Your task to perform on an android device: Open Chrome and go to settings Image 0: 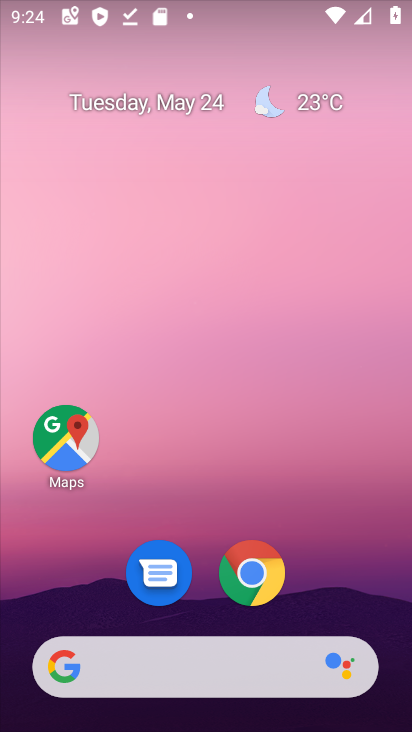
Step 0: drag from (340, 682) to (260, 58)
Your task to perform on an android device: Open Chrome and go to settings Image 1: 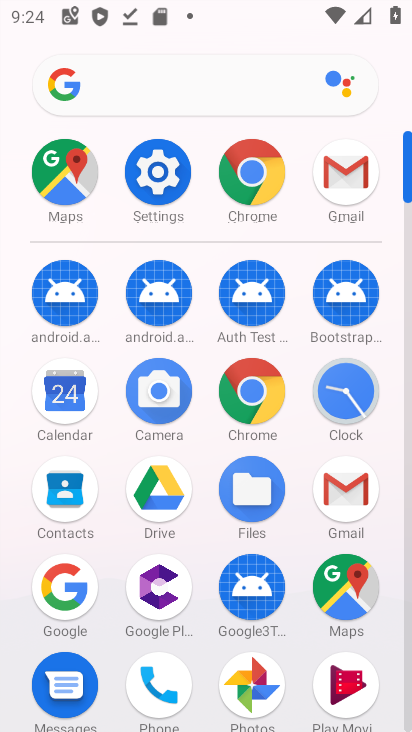
Step 1: click (248, 168)
Your task to perform on an android device: Open Chrome and go to settings Image 2: 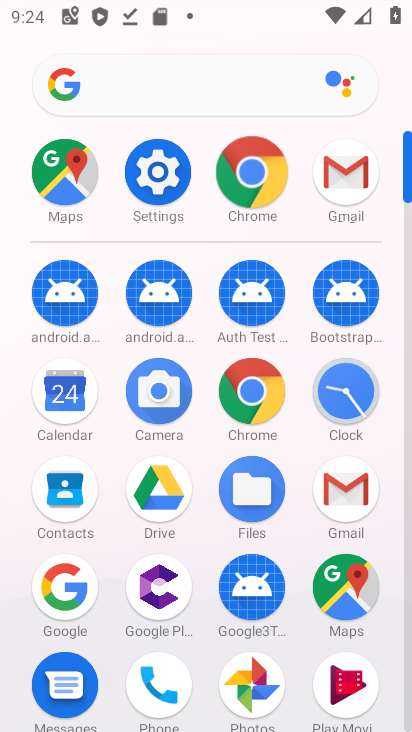
Step 2: click (248, 168)
Your task to perform on an android device: Open Chrome and go to settings Image 3: 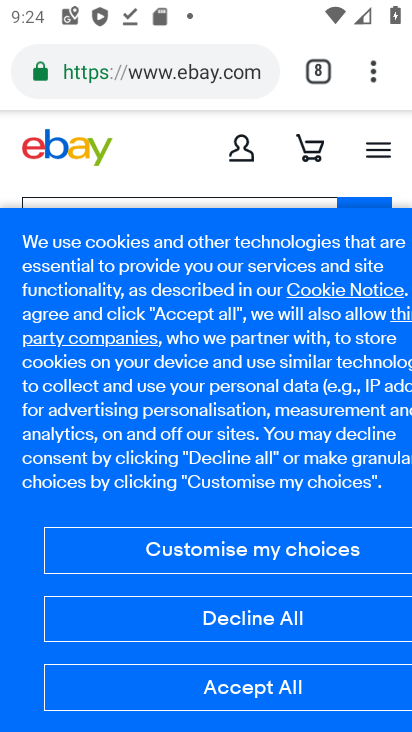
Step 3: drag from (369, 82) to (119, 576)
Your task to perform on an android device: Open Chrome and go to settings Image 4: 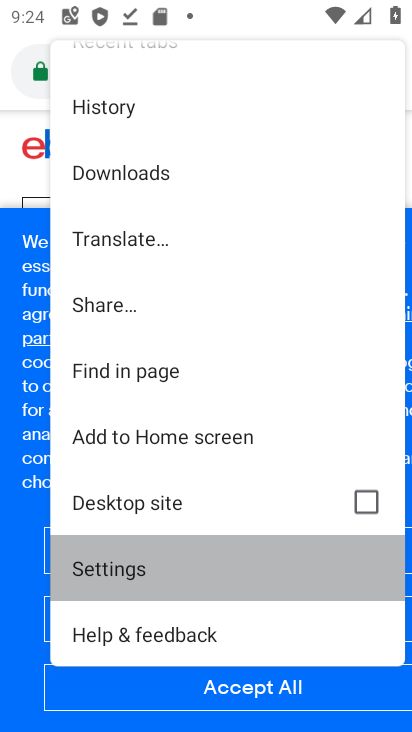
Step 4: click (119, 576)
Your task to perform on an android device: Open Chrome and go to settings Image 5: 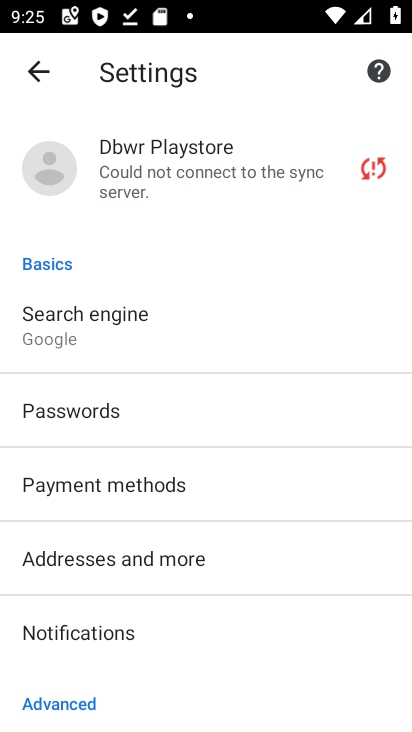
Step 5: task complete